Your task to perform on an android device: What's the weather going to be tomorrow? Image 0: 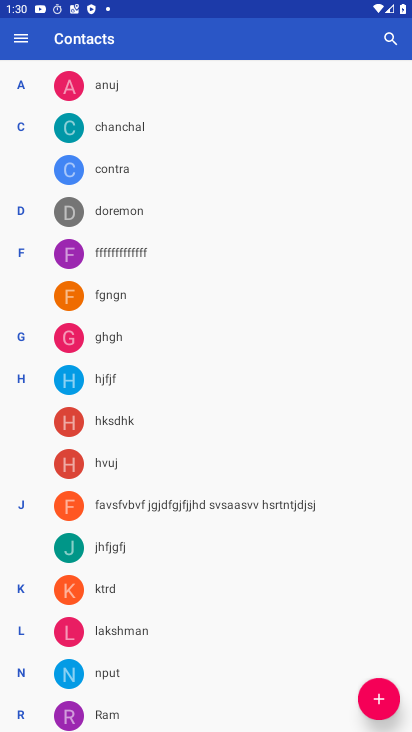
Step 0: press home button
Your task to perform on an android device: What's the weather going to be tomorrow? Image 1: 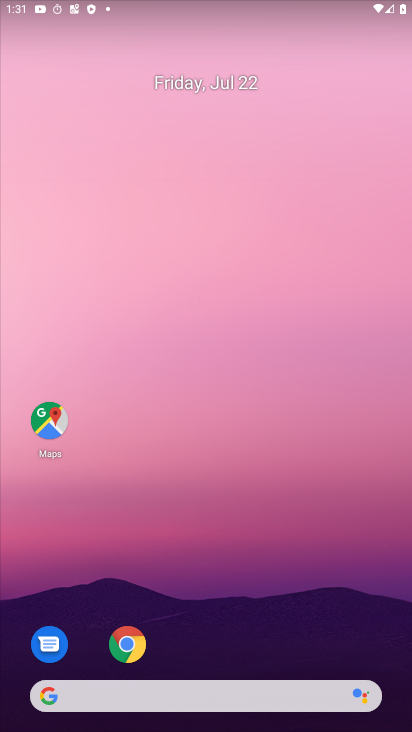
Step 1: drag from (146, 365) to (146, 102)
Your task to perform on an android device: What's the weather going to be tomorrow? Image 2: 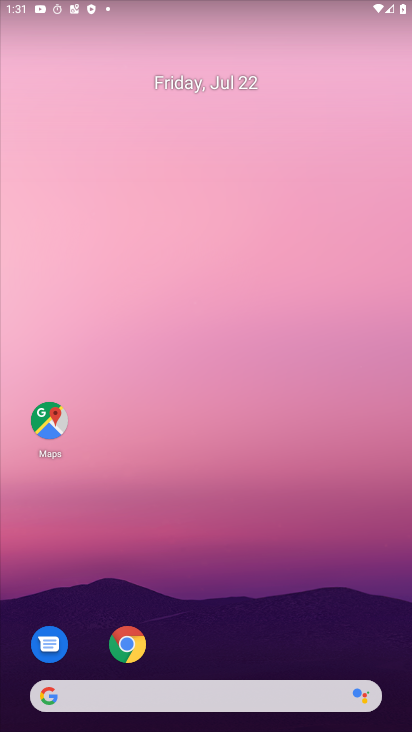
Step 2: drag from (180, 677) to (174, 184)
Your task to perform on an android device: What's the weather going to be tomorrow? Image 3: 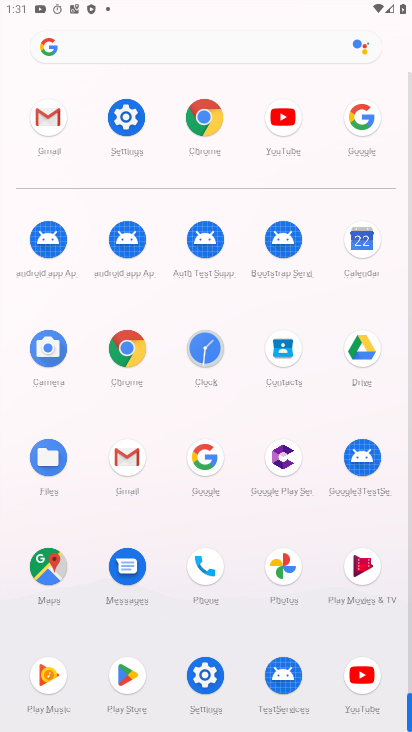
Step 3: click (204, 462)
Your task to perform on an android device: What's the weather going to be tomorrow? Image 4: 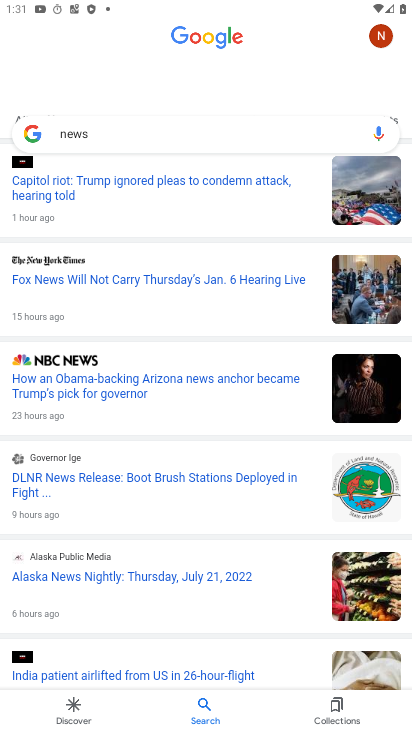
Step 4: click (257, 139)
Your task to perform on an android device: What's the weather going to be tomorrow? Image 5: 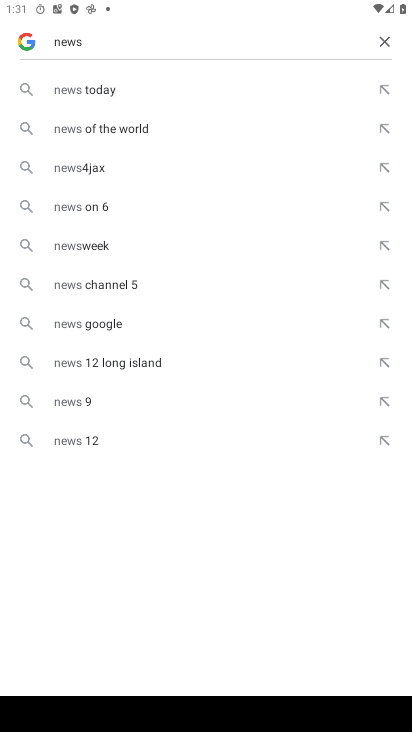
Step 5: click (385, 41)
Your task to perform on an android device: What's the weather going to be tomorrow? Image 6: 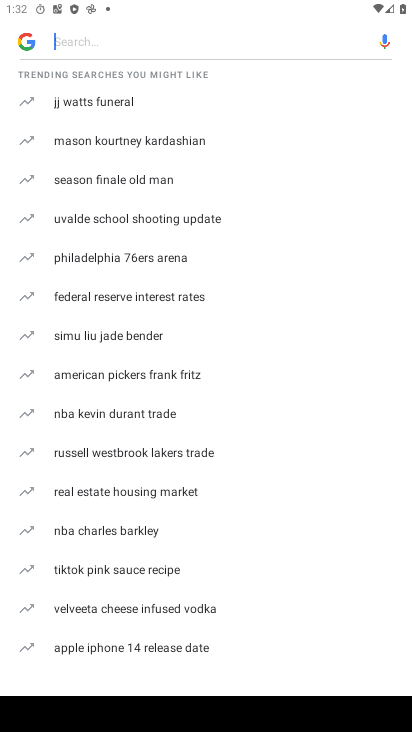
Step 6: type "weather"
Your task to perform on an android device: What's the weather going to be tomorrow? Image 7: 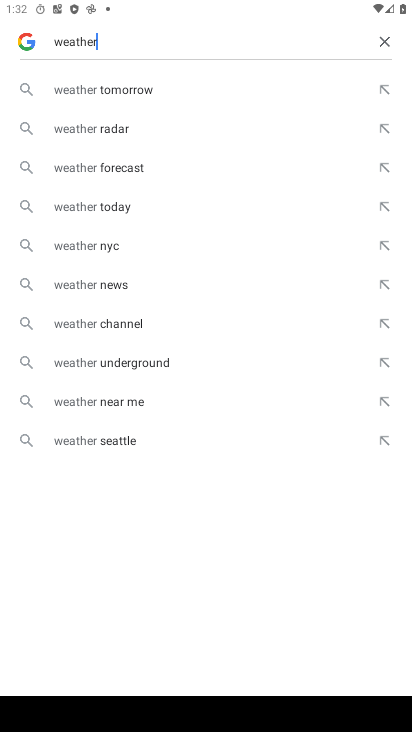
Step 7: click (206, 83)
Your task to perform on an android device: What's the weather going to be tomorrow? Image 8: 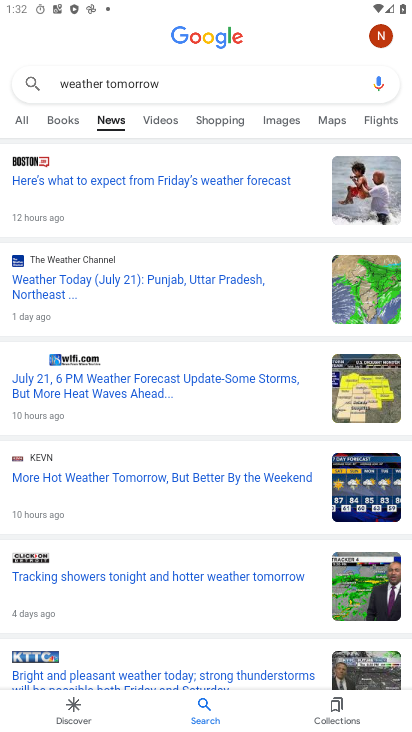
Step 8: task complete